Your task to perform on an android device: Go to calendar. Show me events next week Image 0: 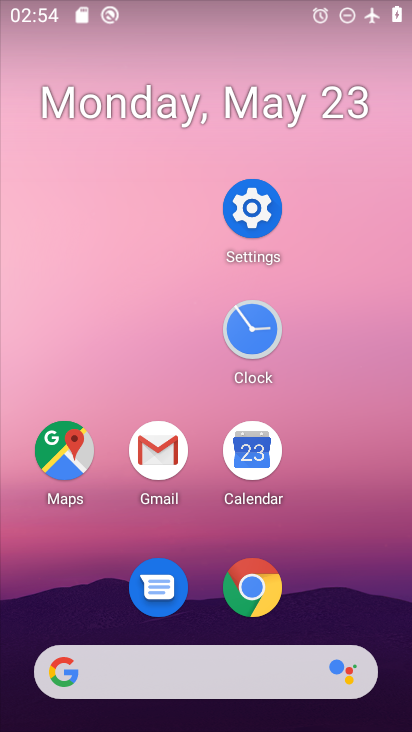
Step 0: click (259, 328)
Your task to perform on an android device: Go to calendar. Show me events next week Image 1: 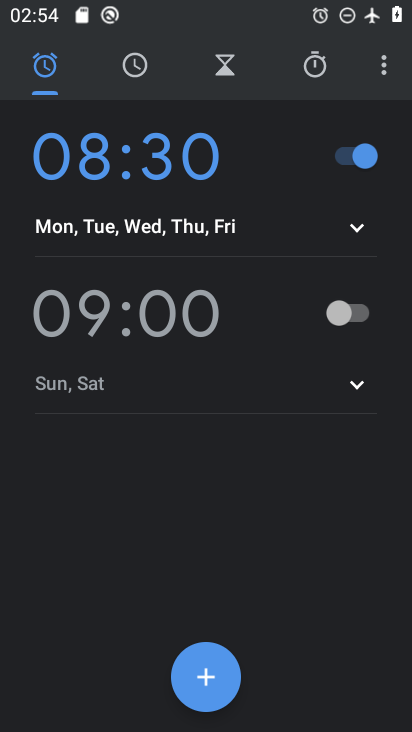
Step 1: press home button
Your task to perform on an android device: Go to calendar. Show me events next week Image 2: 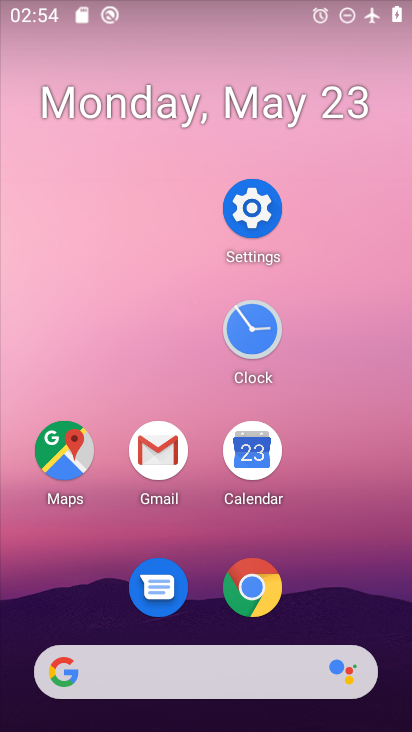
Step 2: click (255, 452)
Your task to perform on an android device: Go to calendar. Show me events next week Image 3: 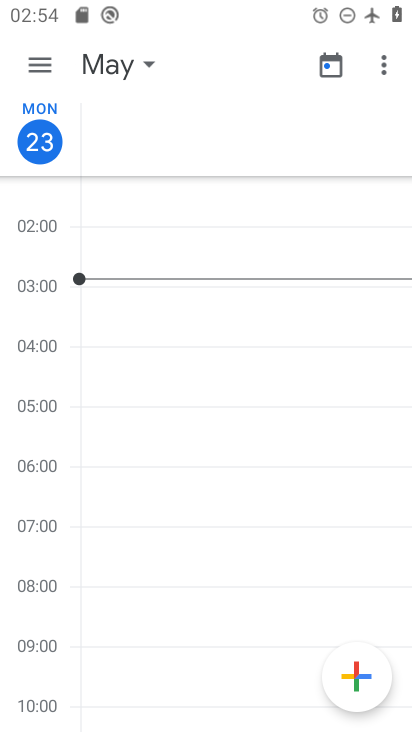
Step 3: click (118, 77)
Your task to perform on an android device: Go to calendar. Show me events next week Image 4: 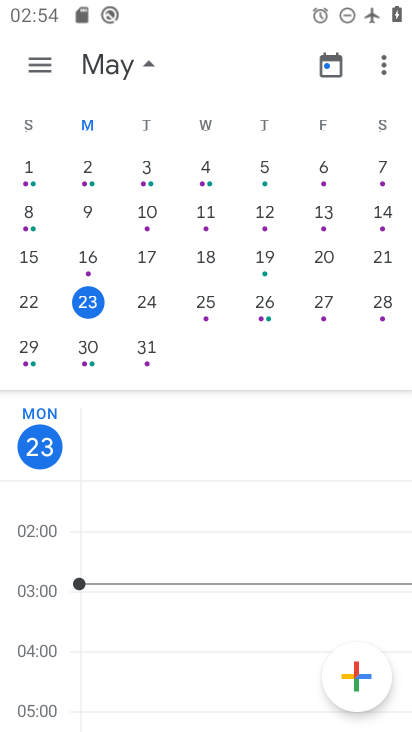
Step 4: click (50, 72)
Your task to perform on an android device: Go to calendar. Show me events next week Image 5: 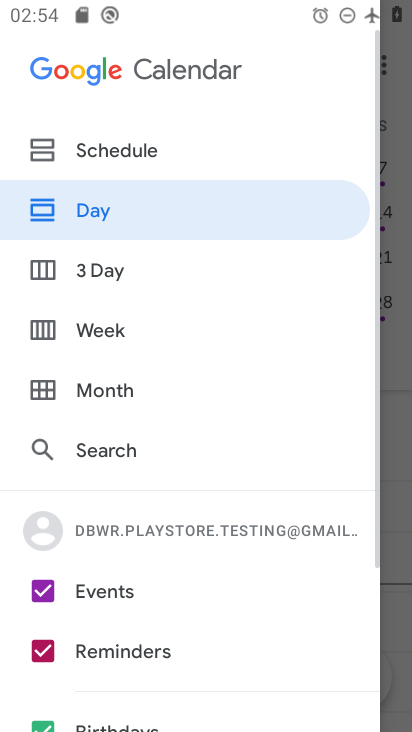
Step 5: click (117, 316)
Your task to perform on an android device: Go to calendar. Show me events next week Image 6: 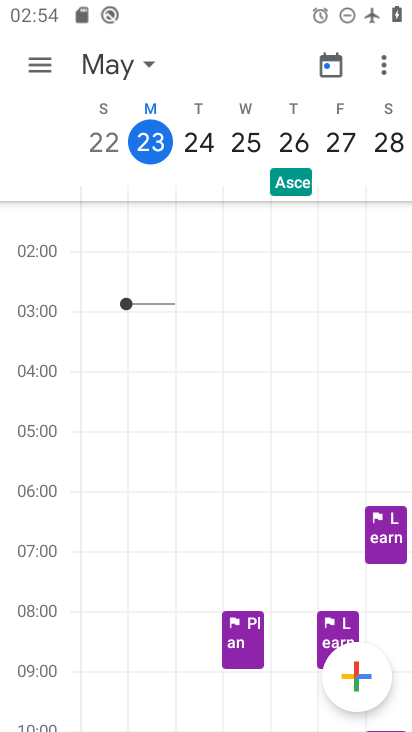
Step 6: task complete